Your task to perform on an android device: Search for the best movies of 2019  Image 0: 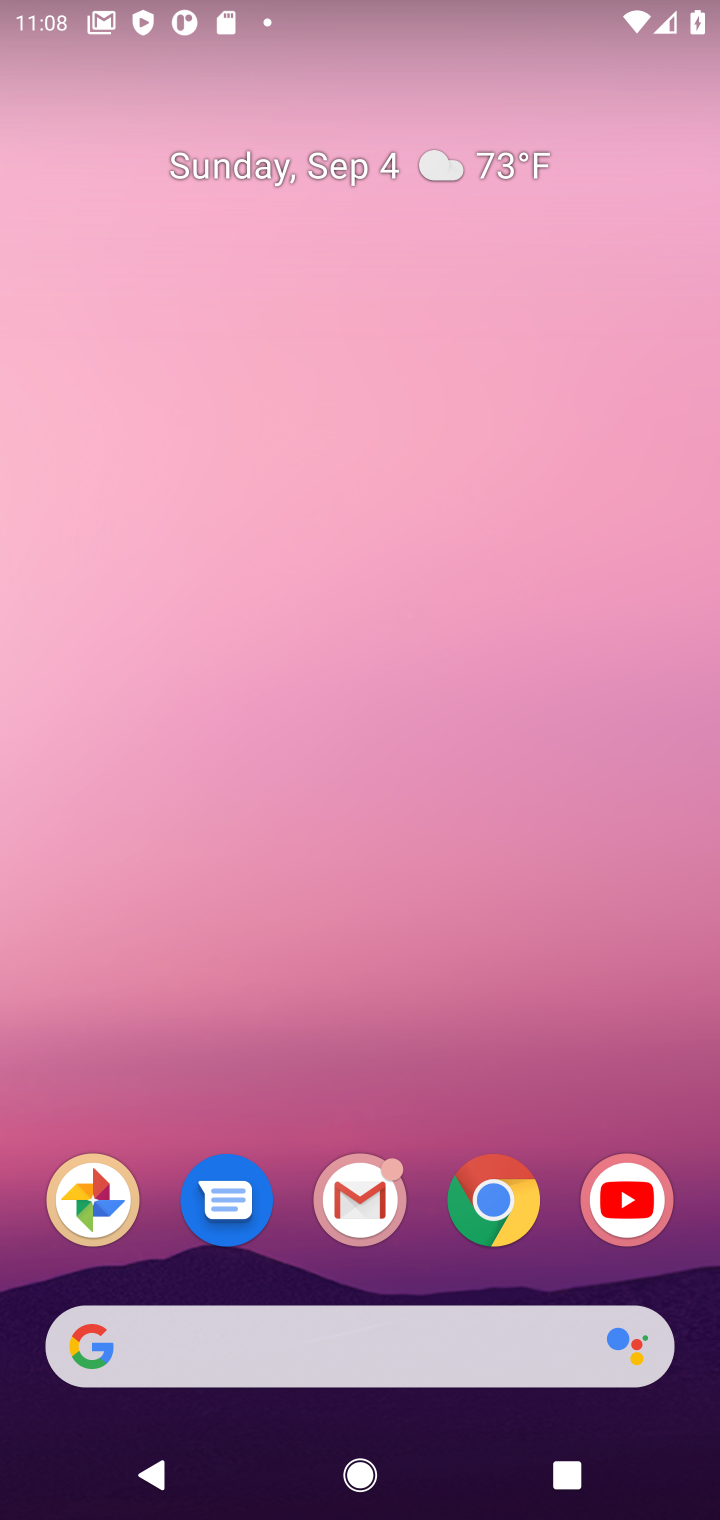
Step 0: click (508, 1196)
Your task to perform on an android device: Search for the best movies of 2019  Image 1: 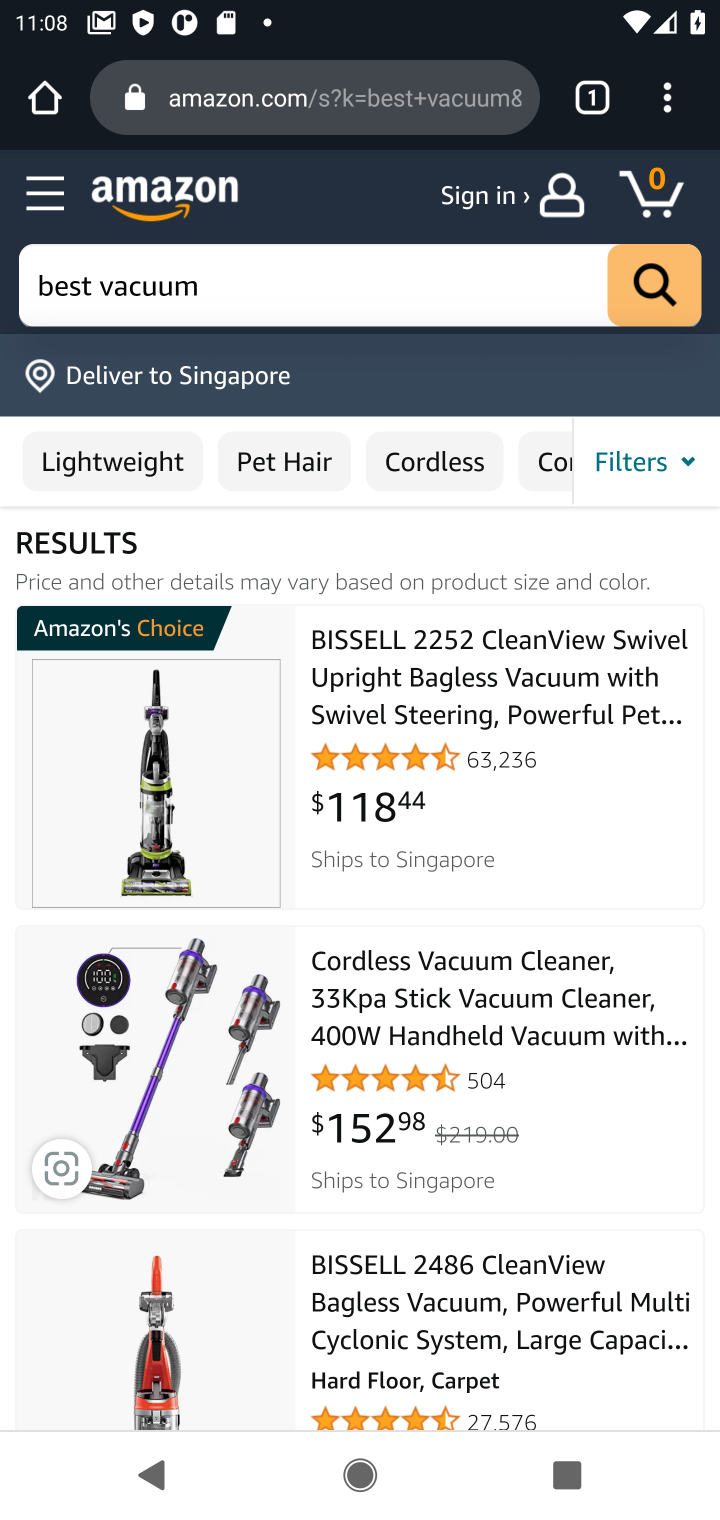
Step 1: click (427, 101)
Your task to perform on an android device: Search for the best movies of 2019  Image 2: 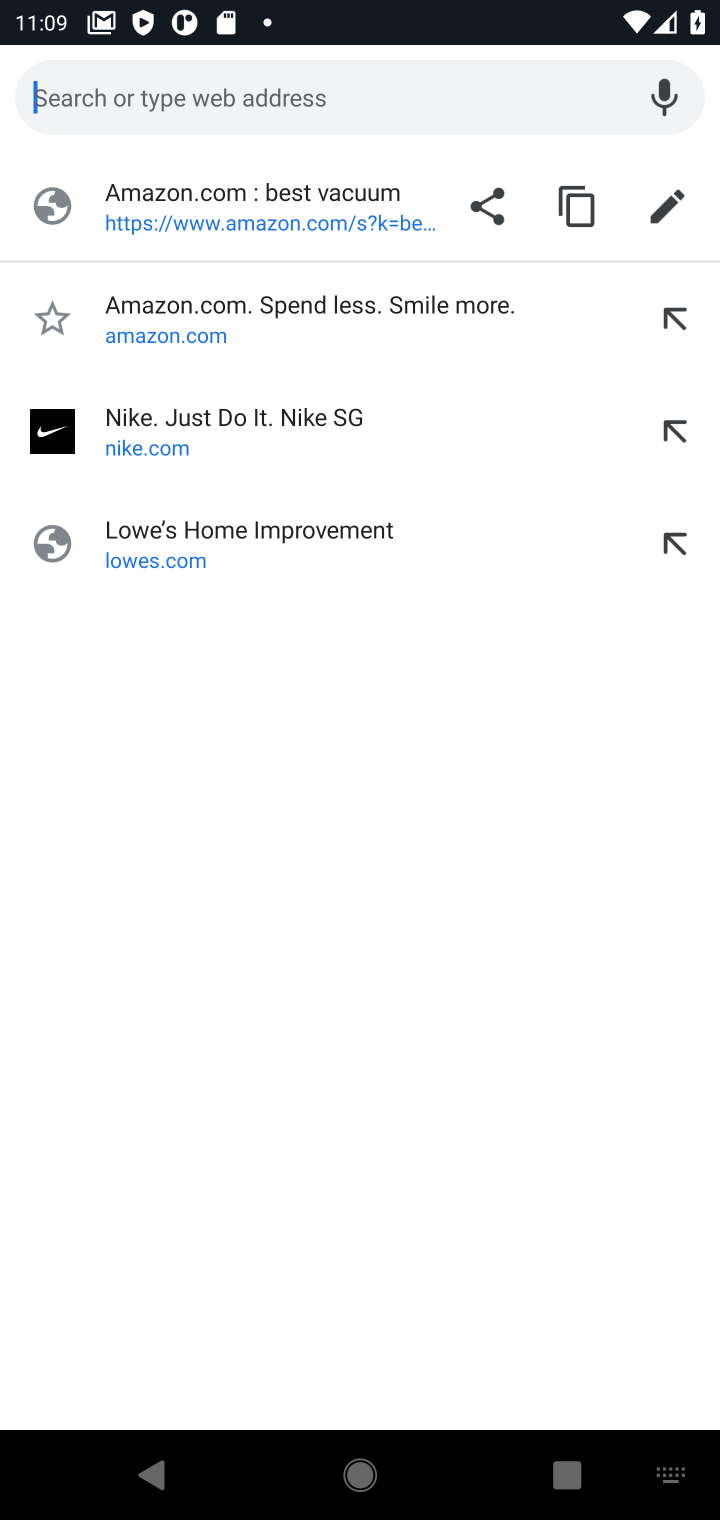
Step 2: type "best movies of 2019"
Your task to perform on an android device: Search for the best movies of 2019  Image 3: 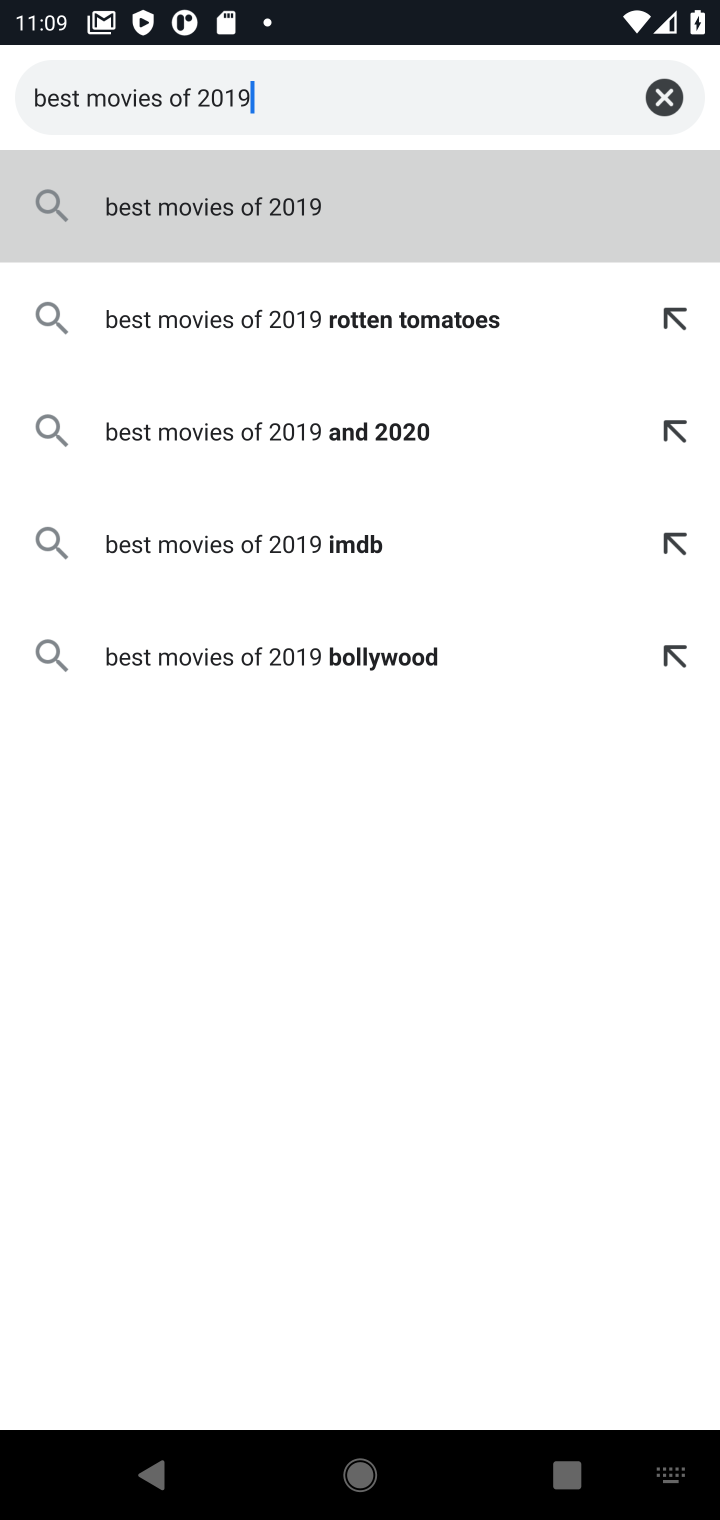
Step 3: click (568, 209)
Your task to perform on an android device: Search for the best movies of 2019  Image 4: 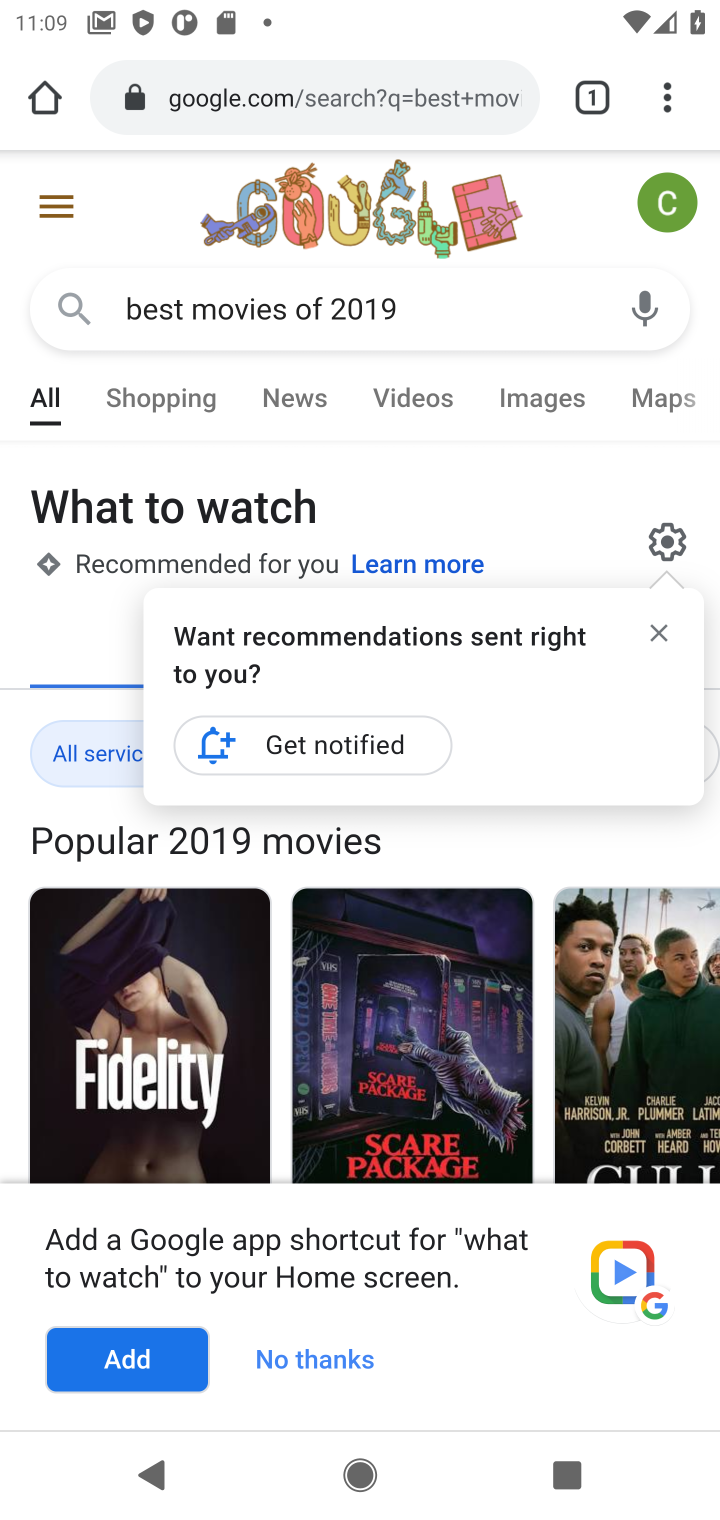
Step 4: click (57, 659)
Your task to perform on an android device: Search for the best movies of 2019  Image 5: 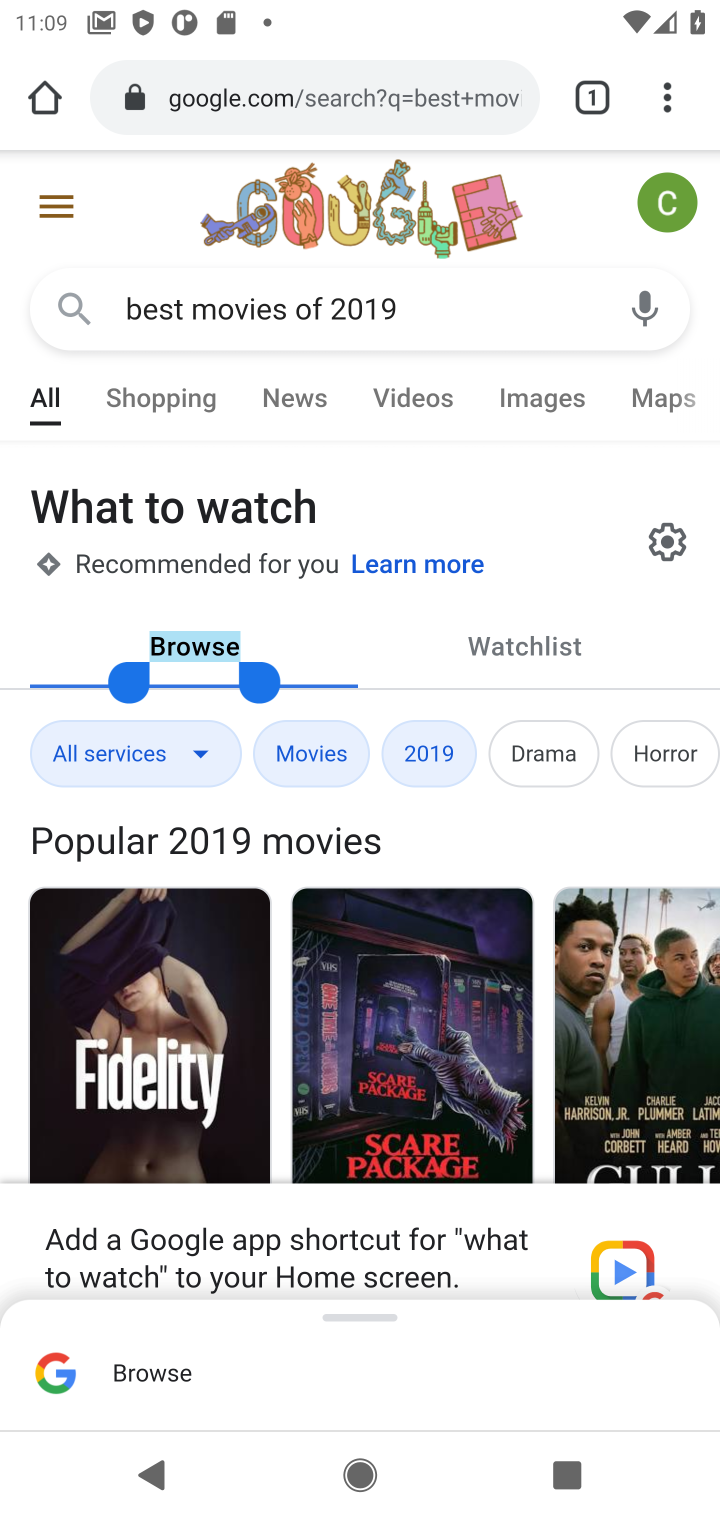
Step 5: click (521, 517)
Your task to perform on an android device: Search for the best movies of 2019  Image 6: 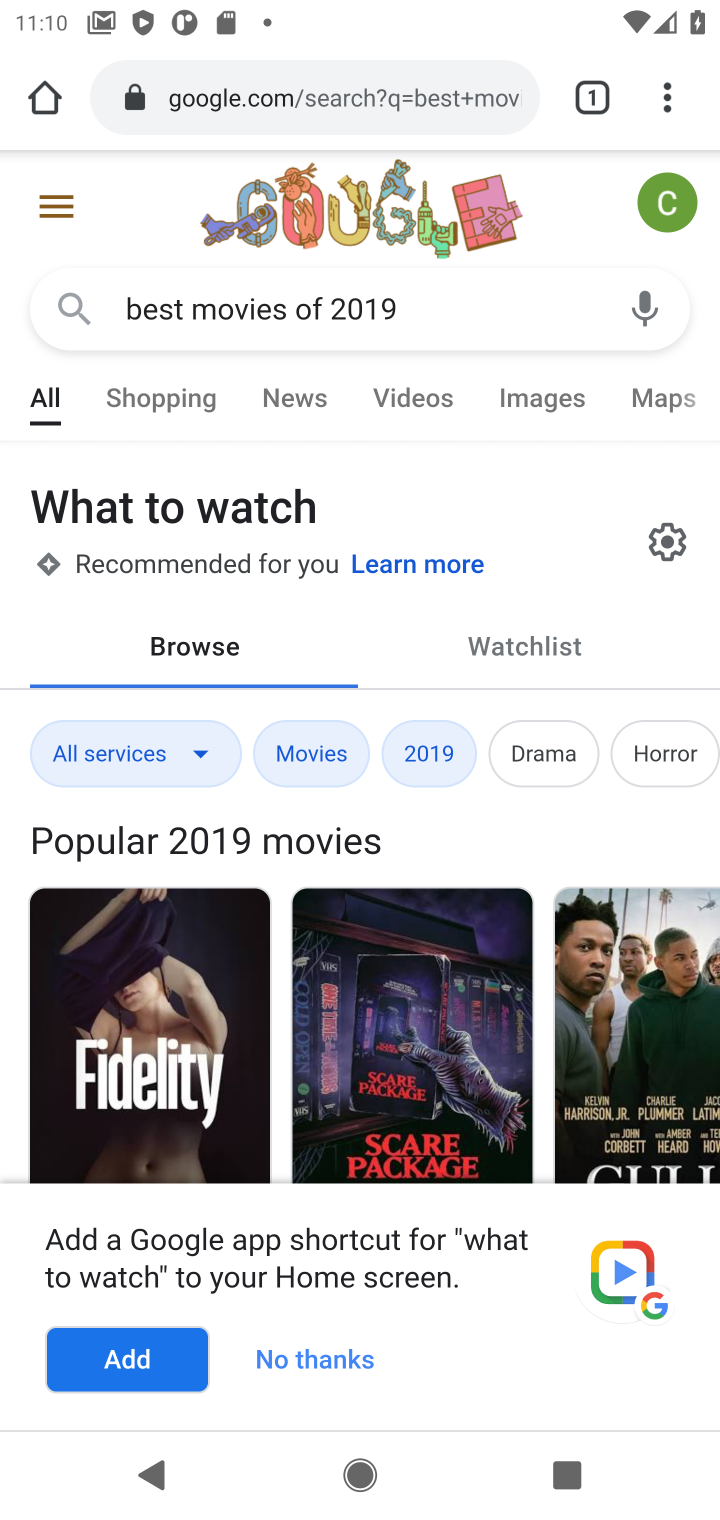
Step 6: task complete